Your task to perform on an android device: Go to Google Image 0: 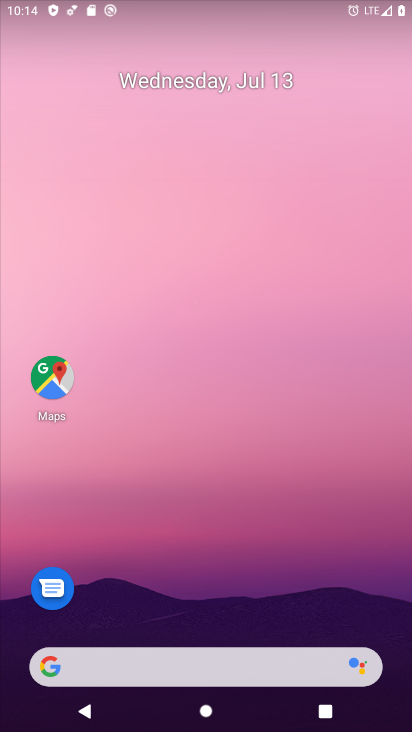
Step 0: drag from (145, 689) to (356, 12)
Your task to perform on an android device: Go to Google Image 1: 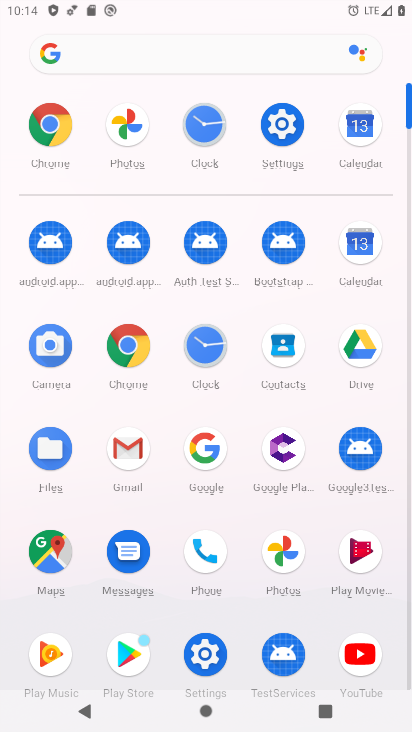
Step 1: click (206, 459)
Your task to perform on an android device: Go to Google Image 2: 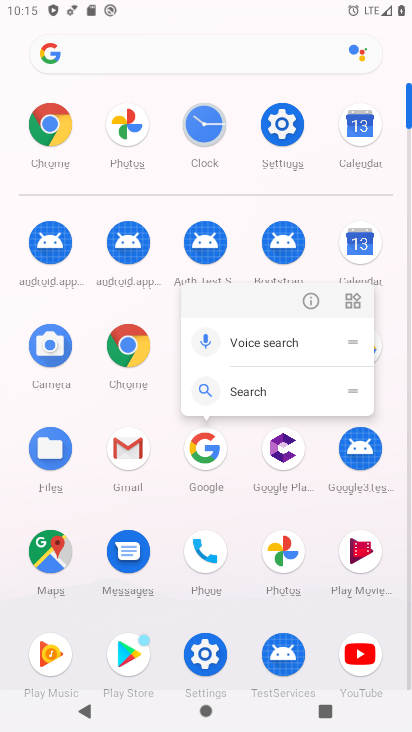
Step 2: click (205, 460)
Your task to perform on an android device: Go to Google Image 3: 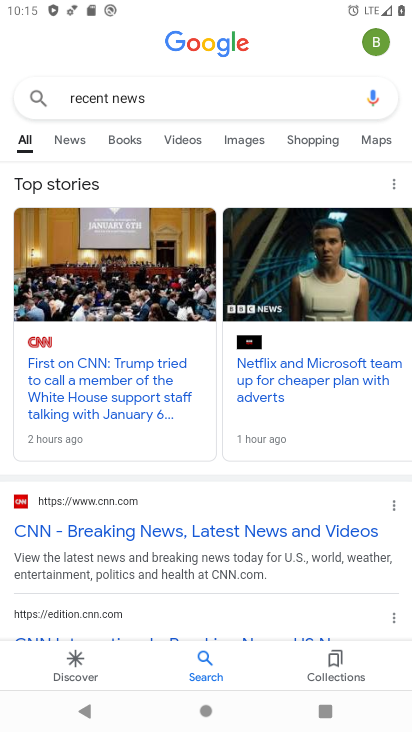
Step 3: task complete